Your task to perform on an android device: change the clock style Image 0: 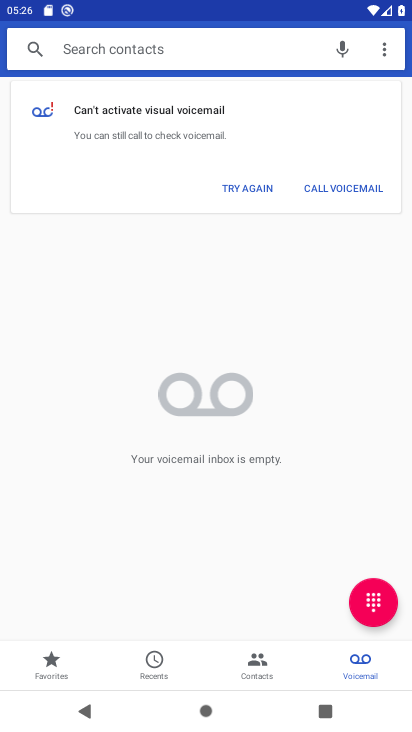
Step 0: press home button
Your task to perform on an android device: change the clock style Image 1: 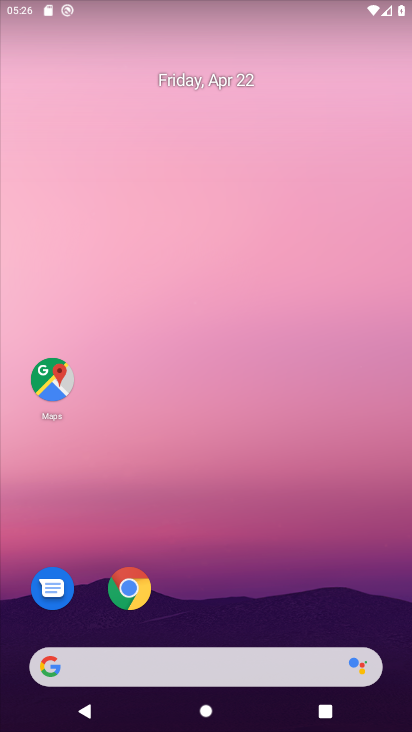
Step 1: drag from (249, 302) to (271, 6)
Your task to perform on an android device: change the clock style Image 2: 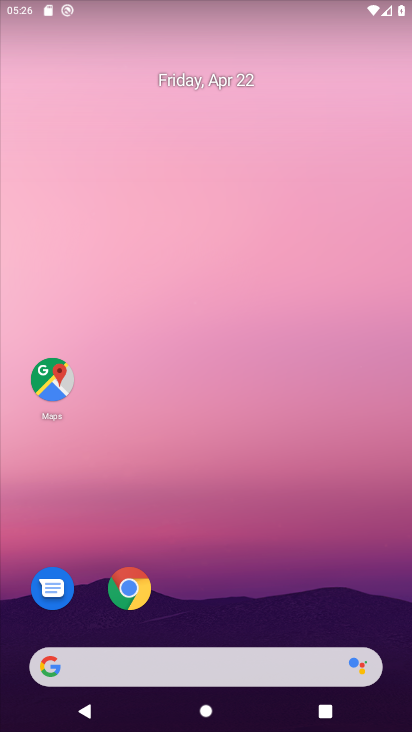
Step 2: drag from (316, 600) to (320, 30)
Your task to perform on an android device: change the clock style Image 3: 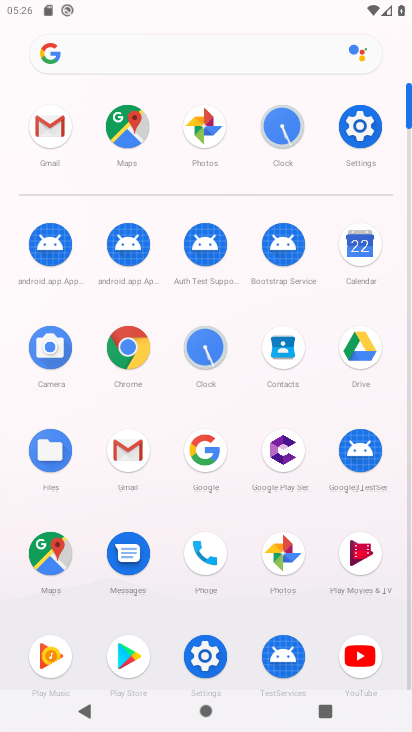
Step 3: click (211, 359)
Your task to perform on an android device: change the clock style Image 4: 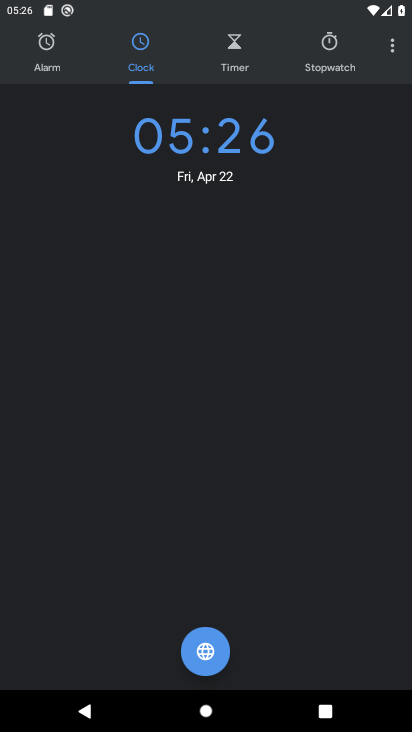
Step 4: click (385, 44)
Your task to perform on an android device: change the clock style Image 5: 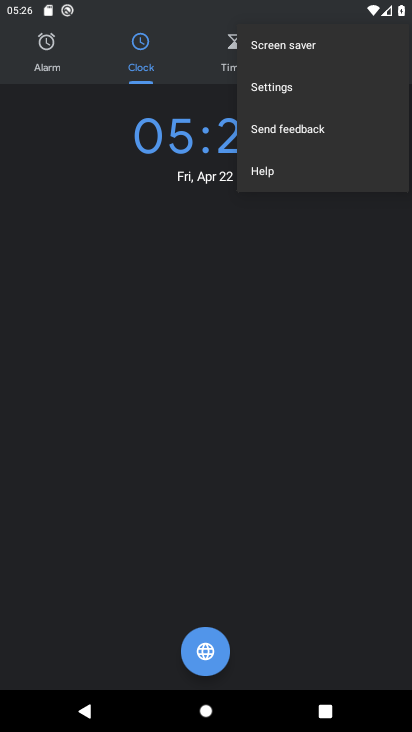
Step 5: click (291, 84)
Your task to perform on an android device: change the clock style Image 6: 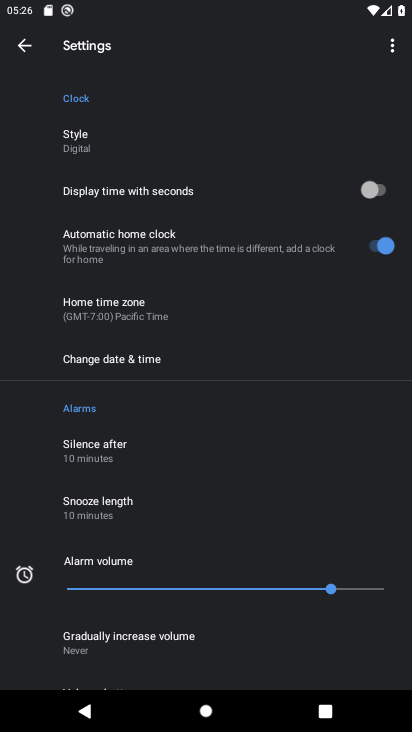
Step 6: drag from (204, 541) to (232, 71)
Your task to perform on an android device: change the clock style Image 7: 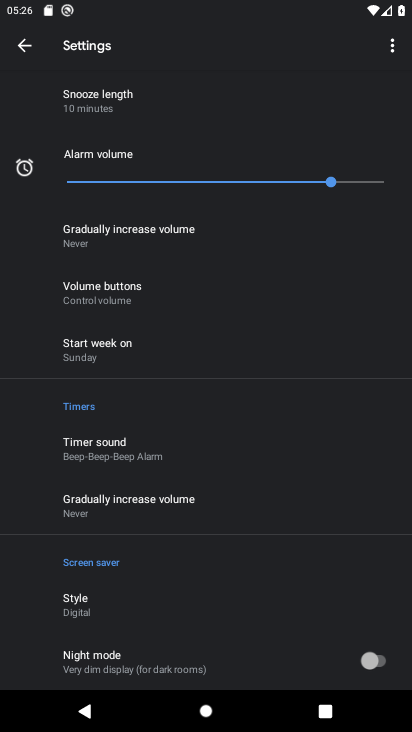
Step 7: drag from (156, 330) to (182, 696)
Your task to perform on an android device: change the clock style Image 8: 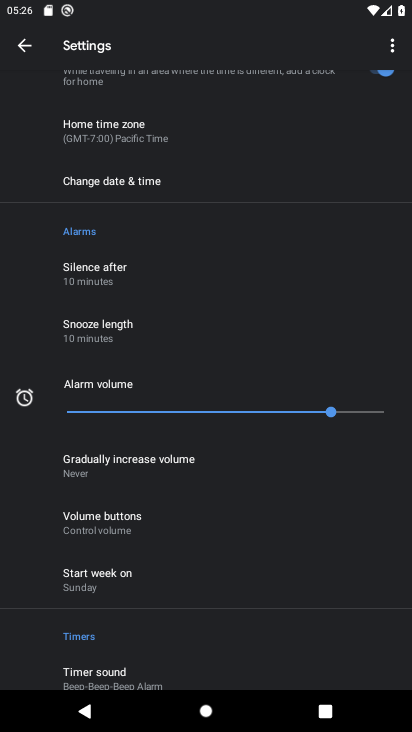
Step 8: drag from (158, 217) to (195, 534)
Your task to perform on an android device: change the clock style Image 9: 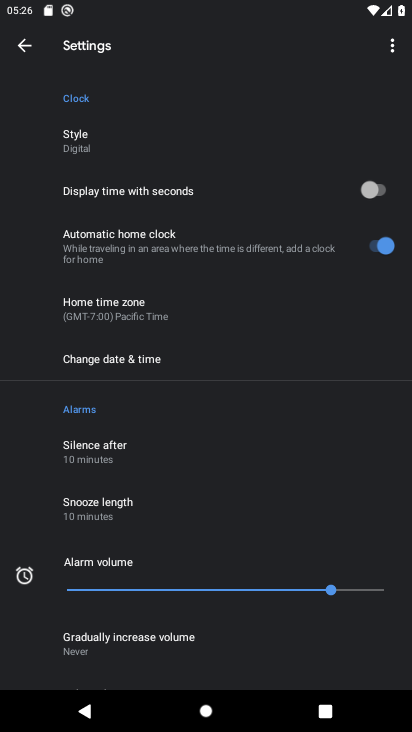
Step 9: click (114, 151)
Your task to perform on an android device: change the clock style Image 10: 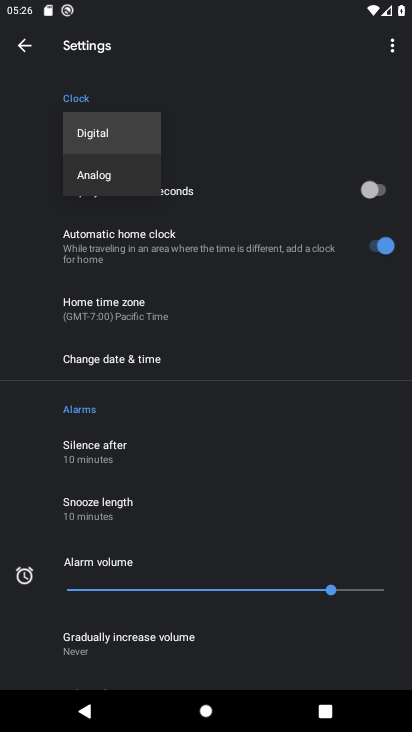
Step 10: click (134, 177)
Your task to perform on an android device: change the clock style Image 11: 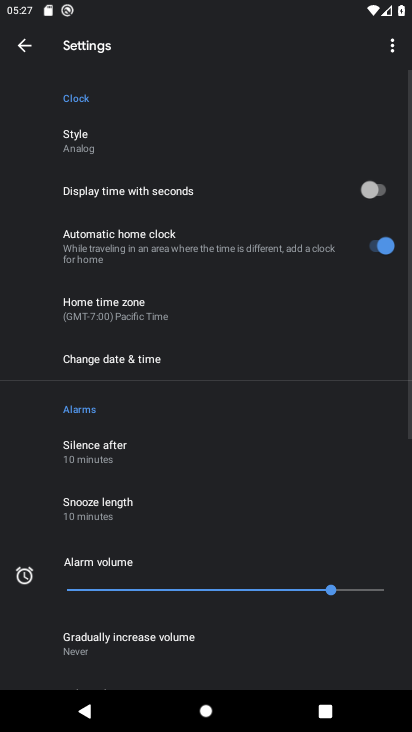
Step 11: task complete